Your task to perform on an android device: clear history in the chrome app Image 0: 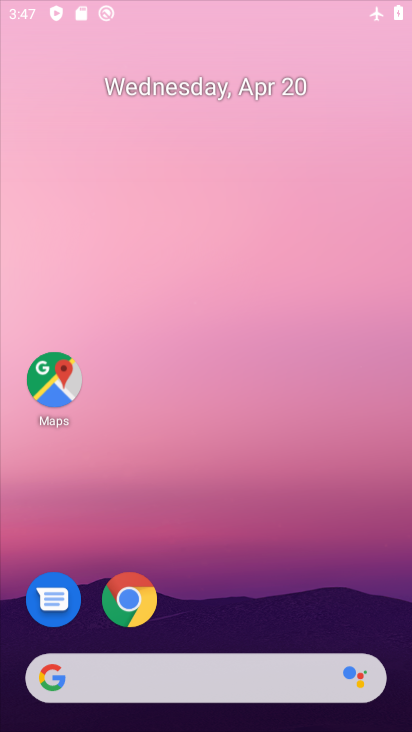
Step 0: click (312, 66)
Your task to perform on an android device: clear history in the chrome app Image 1: 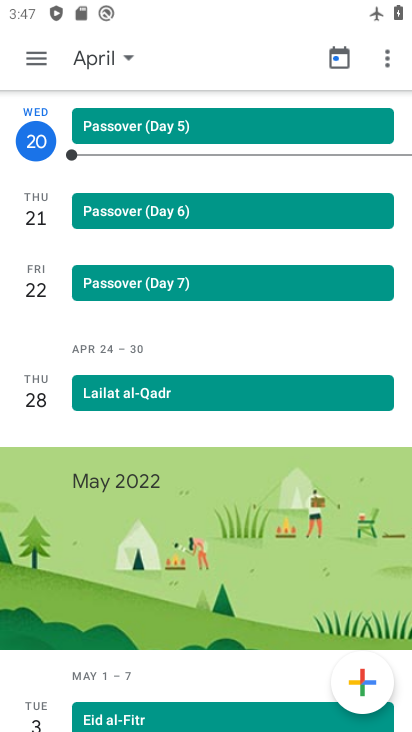
Step 1: press home button
Your task to perform on an android device: clear history in the chrome app Image 2: 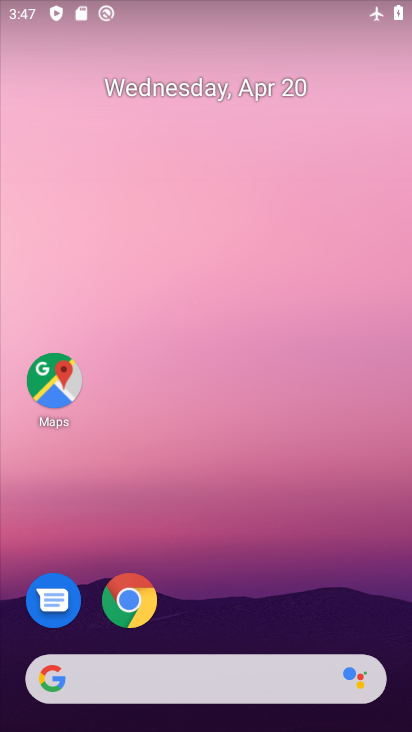
Step 2: click (125, 591)
Your task to perform on an android device: clear history in the chrome app Image 3: 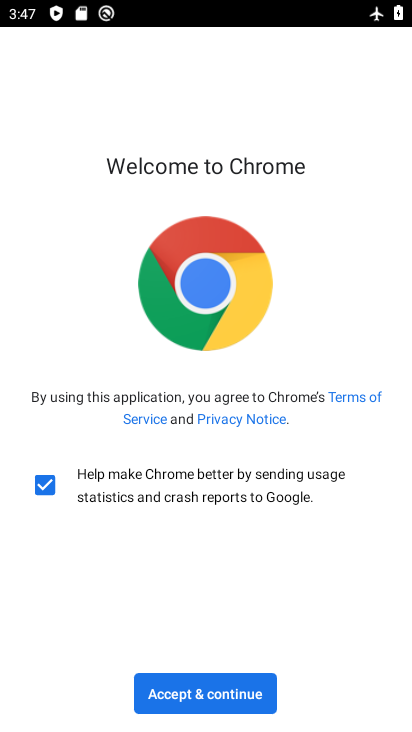
Step 3: click (210, 686)
Your task to perform on an android device: clear history in the chrome app Image 4: 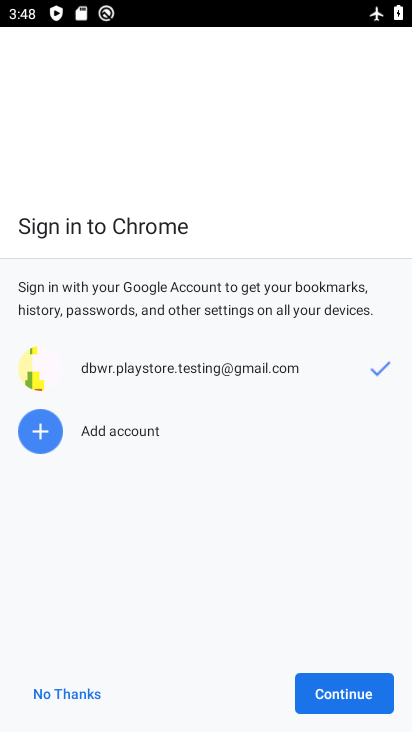
Step 4: click (344, 693)
Your task to perform on an android device: clear history in the chrome app Image 5: 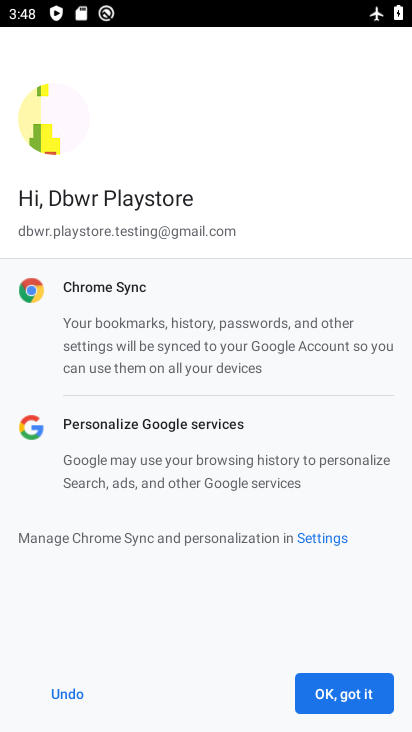
Step 5: click (345, 693)
Your task to perform on an android device: clear history in the chrome app Image 6: 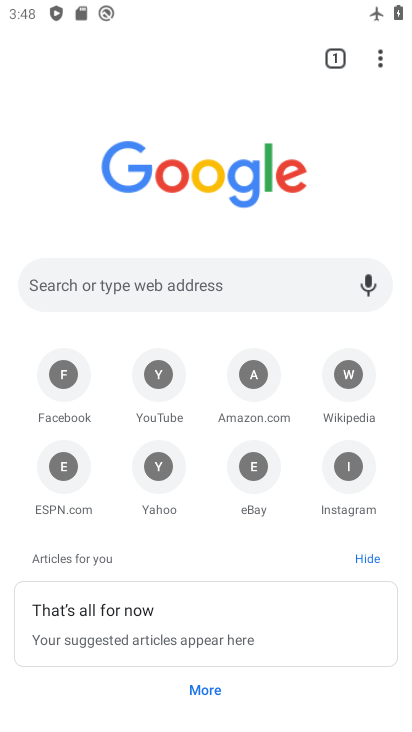
Step 6: click (383, 58)
Your task to perform on an android device: clear history in the chrome app Image 7: 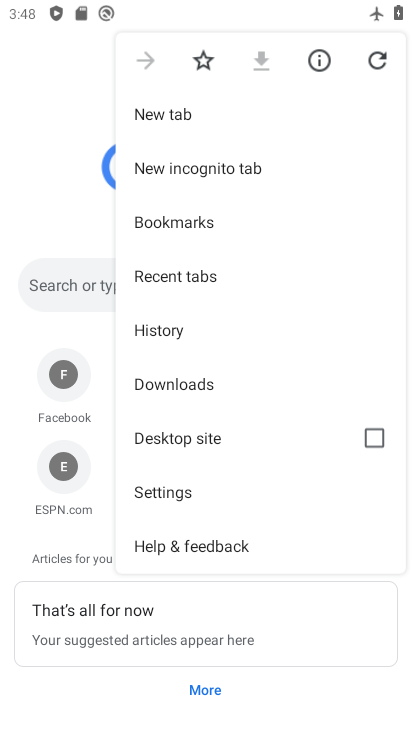
Step 7: click (190, 332)
Your task to perform on an android device: clear history in the chrome app Image 8: 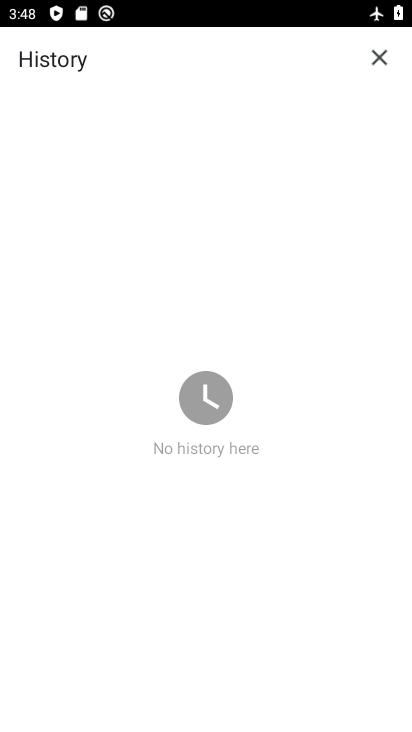
Step 8: task complete